Your task to perform on an android device: Open network settings Image 0: 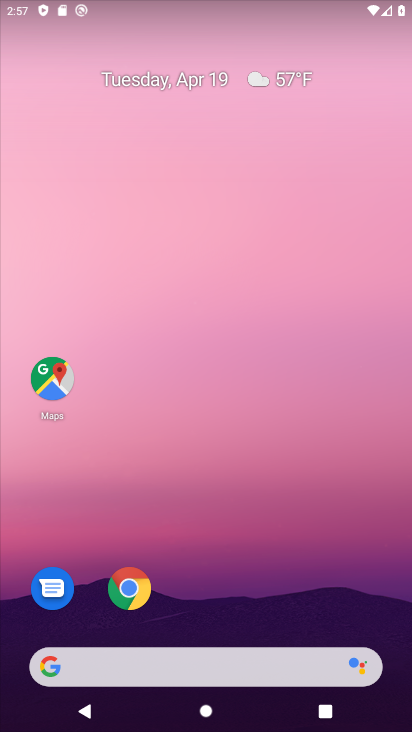
Step 0: drag from (207, 630) to (263, 201)
Your task to perform on an android device: Open network settings Image 1: 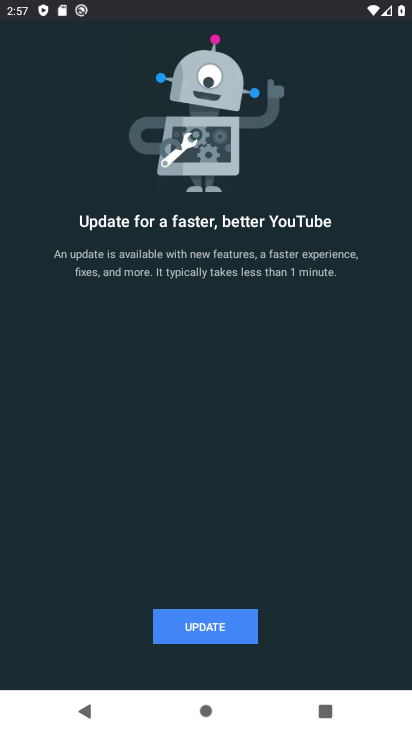
Step 1: press home button
Your task to perform on an android device: Open network settings Image 2: 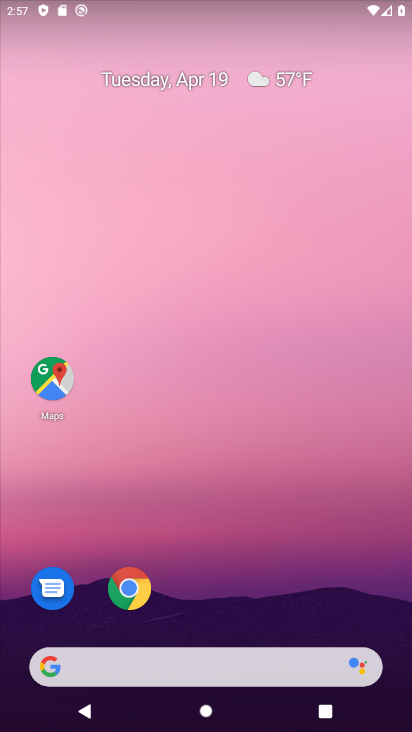
Step 2: drag from (209, 619) to (209, 173)
Your task to perform on an android device: Open network settings Image 3: 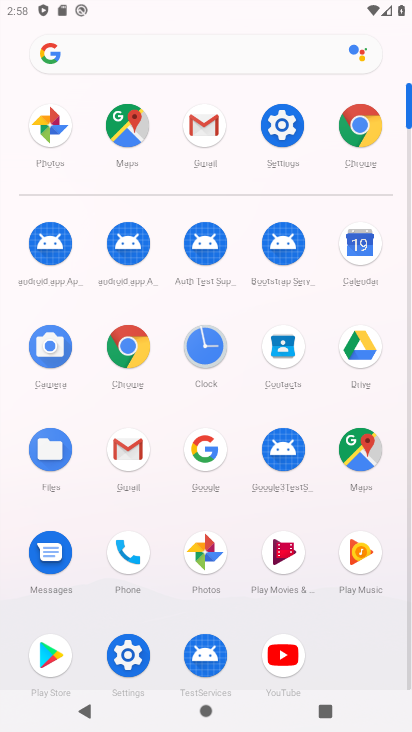
Step 3: click (129, 647)
Your task to perform on an android device: Open network settings Image 4: 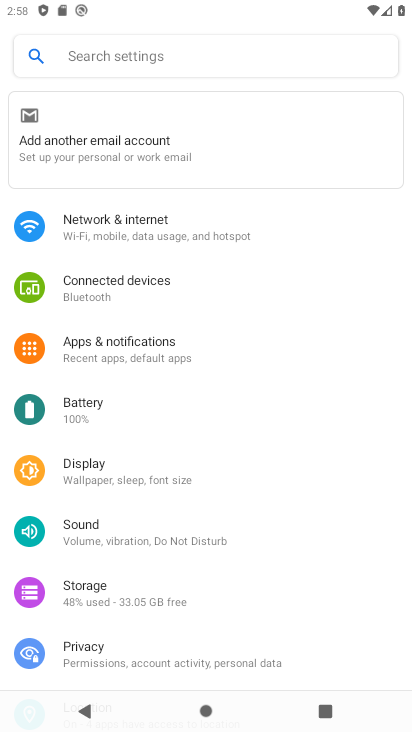
Step 4: click (164, 227)
Your task to perform on an android device: Open network settings Image 5: 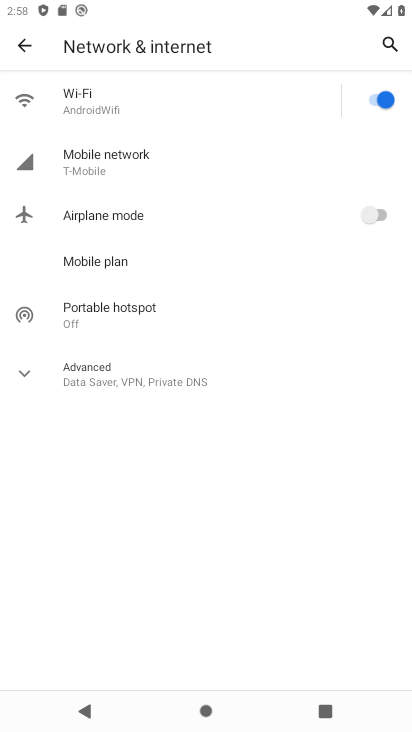
Step 5: task complete